Your task to perform on an android device: uninstall "eBay: The shopping marketplace" Image 0: 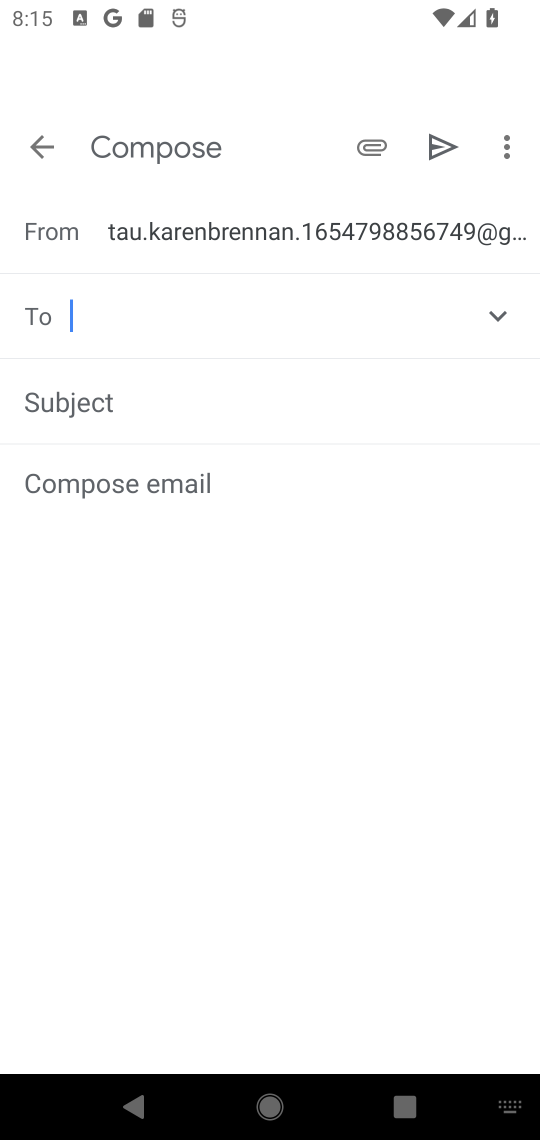
Step 0: press home button
Your task to perform on an android device: uninstall "eBay: The shopping marketplace" Image 1: 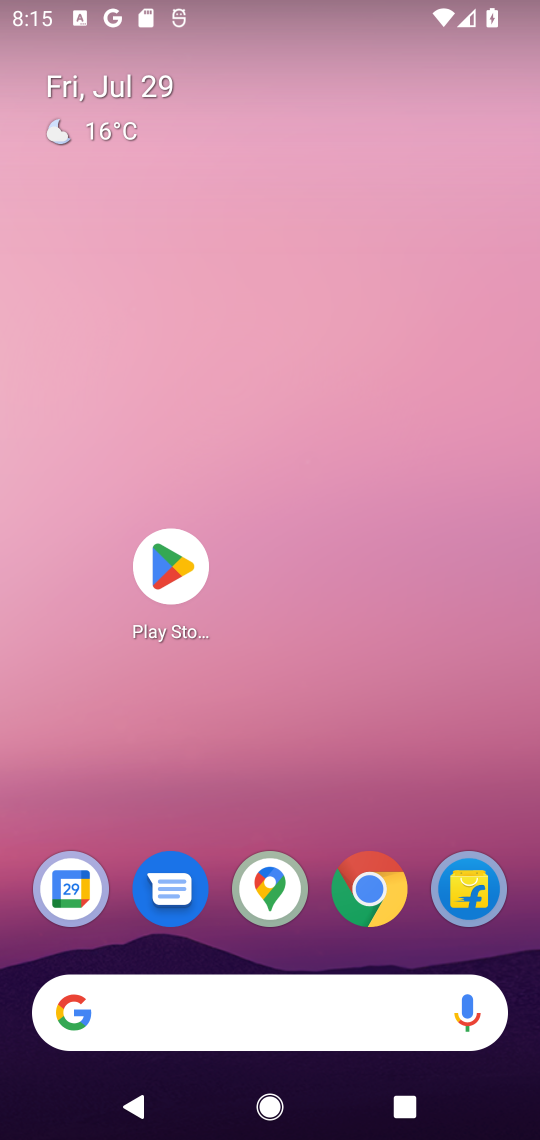
Step 1: click (158, 568)
Your task to perform on an android device: uninstall "eBay: The shopping marketplace" Image 2: 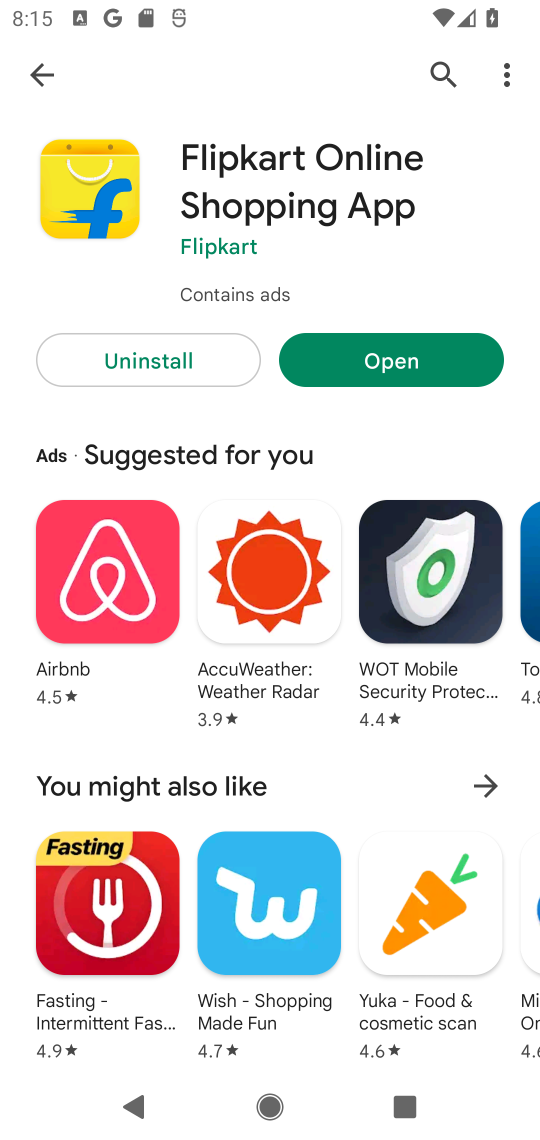
Step 2: click (441, 74)
Your task to perform on an android device: uninstall "eBay: The shopping marketplace" Image 3: 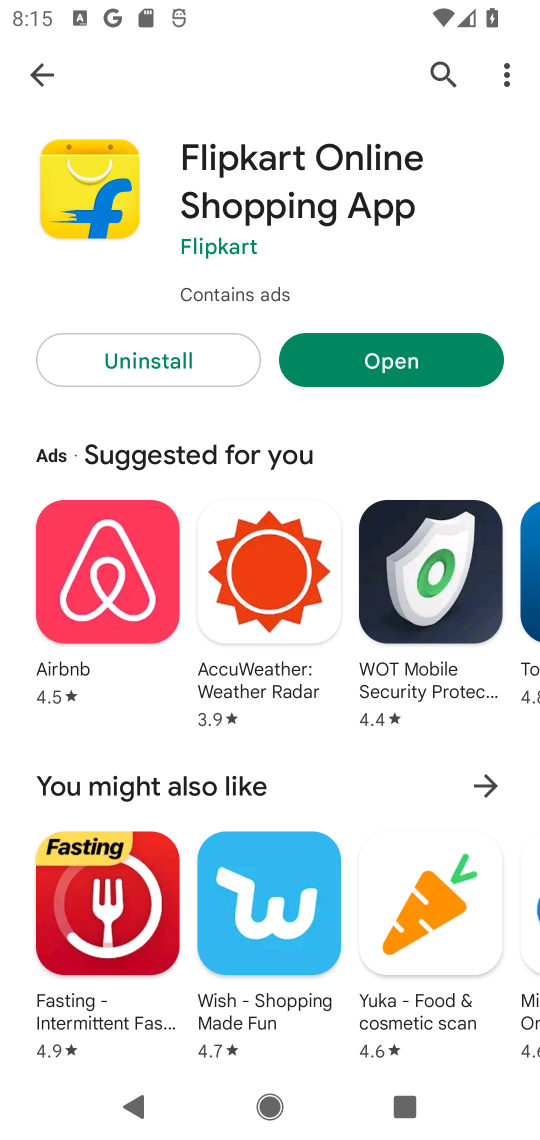
Step 3: click (437, 70)
Your task to perform on an android device: uninstall "eBay: The shopping marketplace" Image 4: 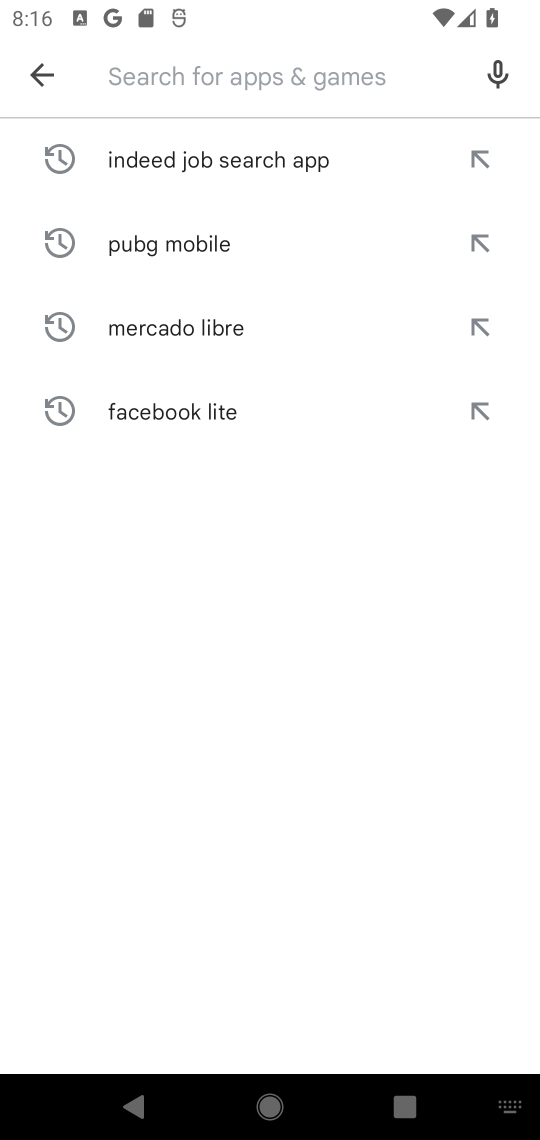
Step 4: type "eBay: The shopping marketplace"
Your task to perform on an android device: uninstall "eBay: The shopping marketplace" Image 5: 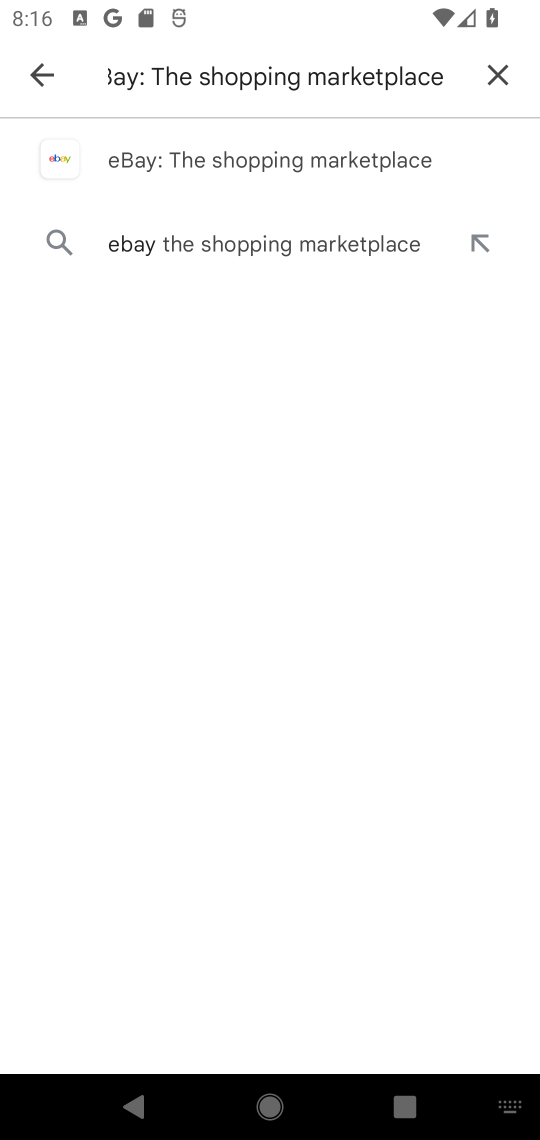
Step 5: click (269, 156)
Your task to perform on an android device: uninstall "eBay: The shopping marketplace" Image 6: 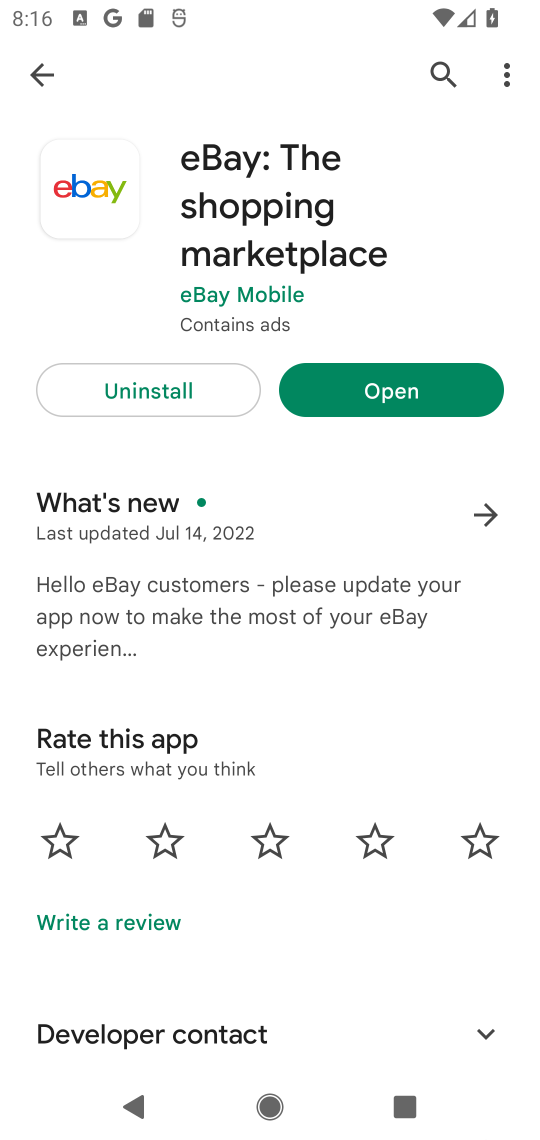
Step 6: click (154, 388)
Your task to perform on an android device: uninstall "eBay: The shopping marketplace" Image 7: 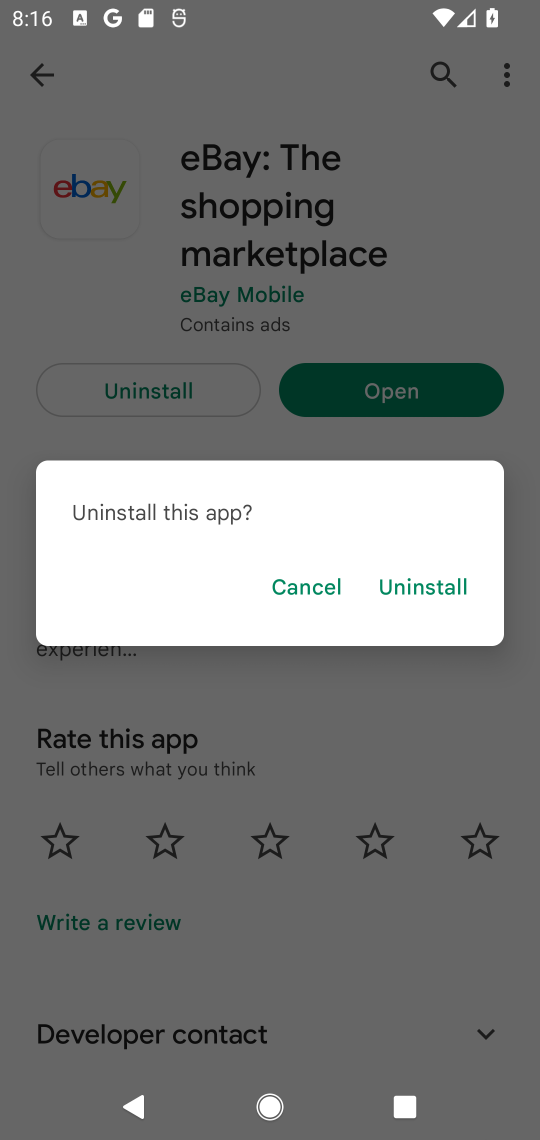
Step 7: click (408, 584)
Your task to perform on an android device: uninstall "eBay: The shopping marketplace" Image 8: 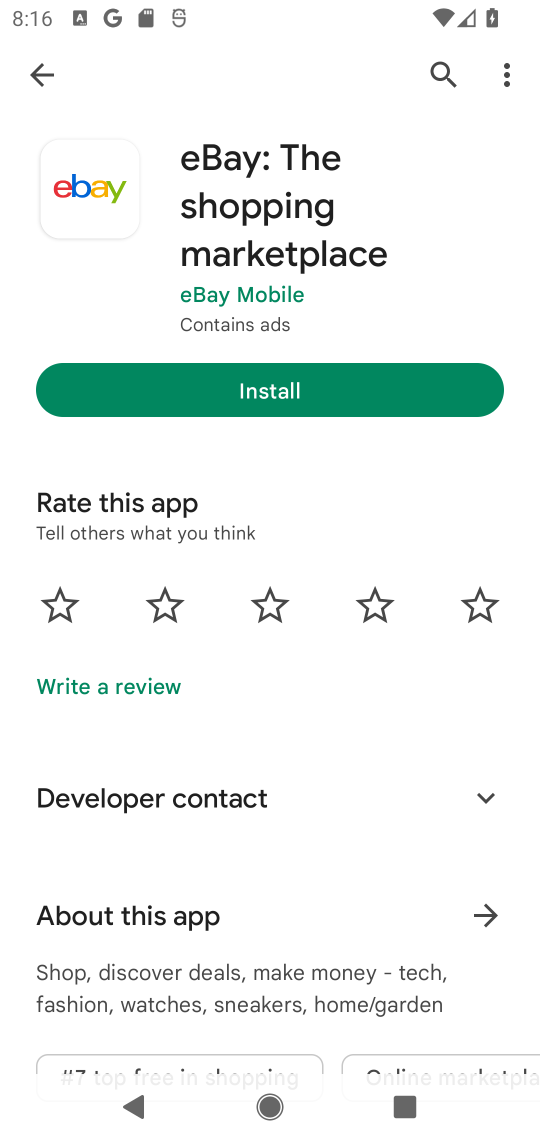
Step 8: task complete